Your task to perform on an android device: Open Chrome and go to the settings page Image 0: 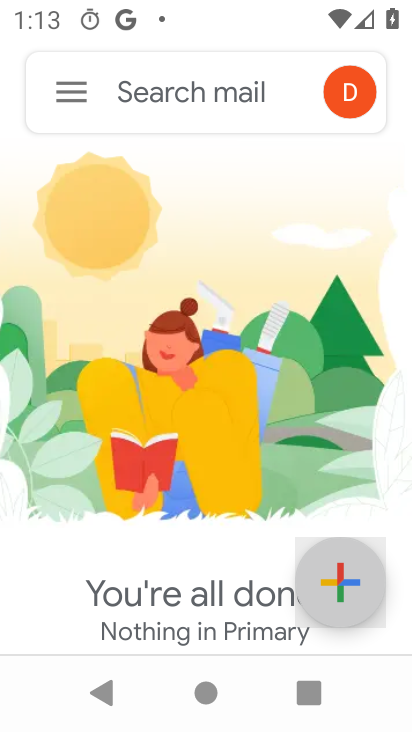
Step 0: press home button
Your task to perform on an android device: Open Chrome and go to the settings page Image 1: 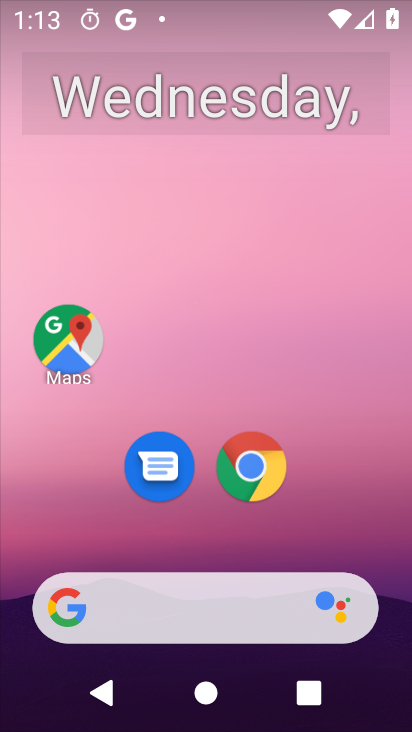
Step 1: click (282, 464)
Your task to perform on an android device: Open Chrome and go to the settings page Image 2: 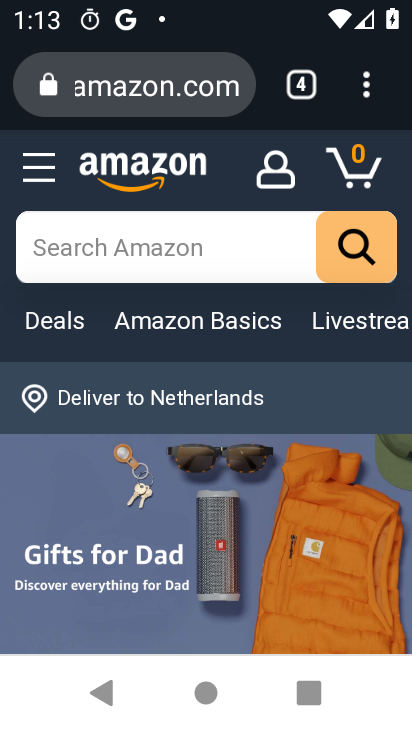
Step 2: click (355, 82)
Your task to perform on an android device: Open Chrome and go to the settings page Image 3: 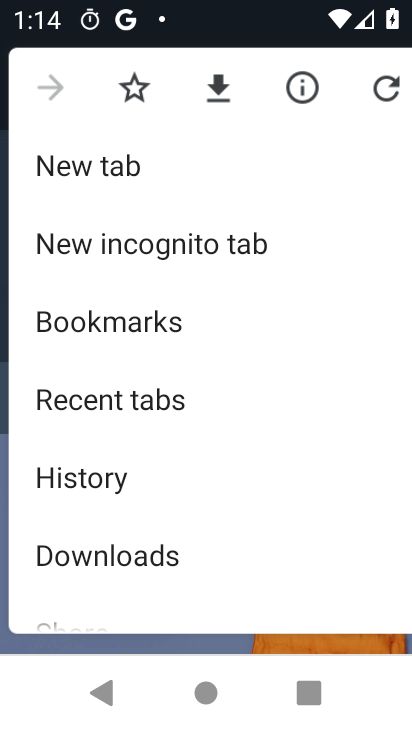
Step 3: drag from (265, 536) to (235, 249)
Your task to perform on an android device: Open Chrome and go to the settings page Image 4: 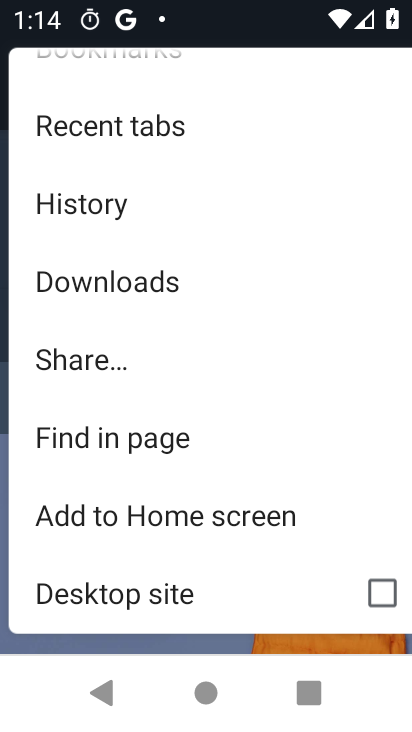
Step 4: drag from (91, 601) to (110, 297)
Your task to perform on an android device: Open Chrome and go to the settings page Image 5: 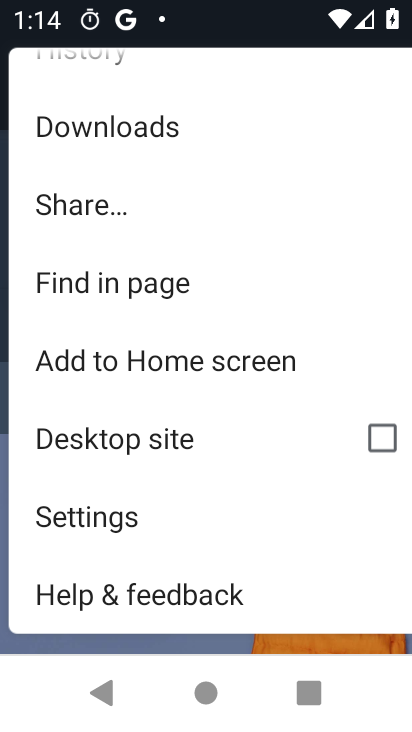
Step 5: click (119, 527)
Your task to perform on an android device: Open Chrome and go to the settings page Image 6: 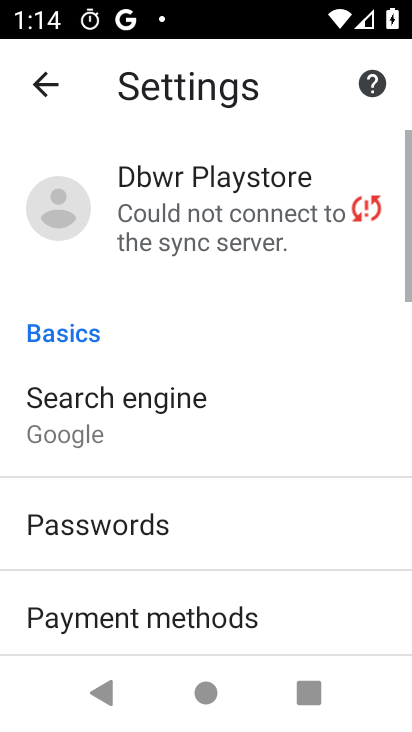
Step 6: click (119, 527)
Your task to perform on an android device: Open Chrome and go to the settings page Image 7: 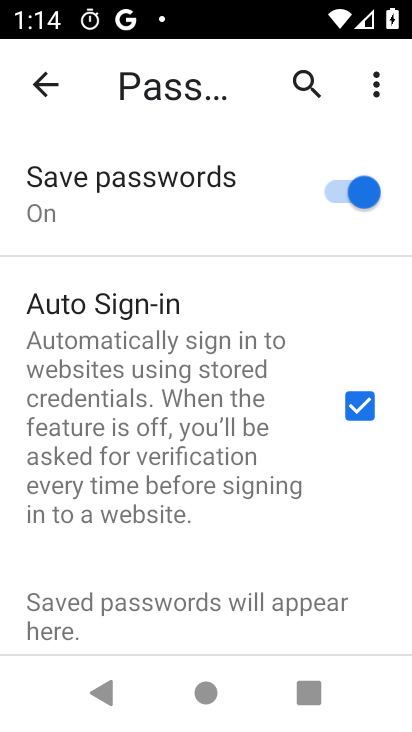
Step 7: task complete